Your task to perform on an android device: turn on sleep mode Image 0: 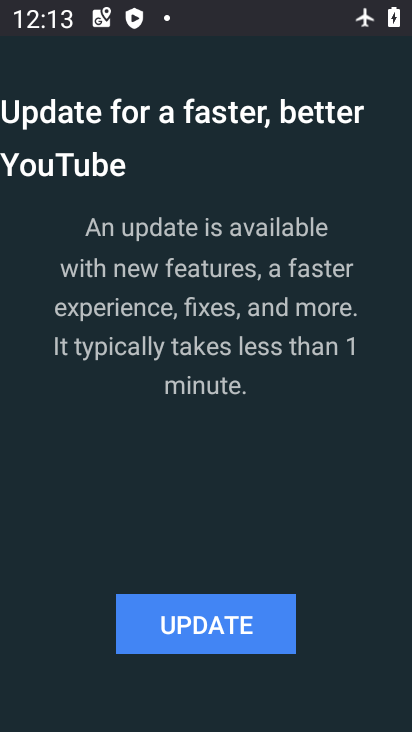
Step 0: press back button
Your task to perform on an android device: turn on sleep mode Image 1: 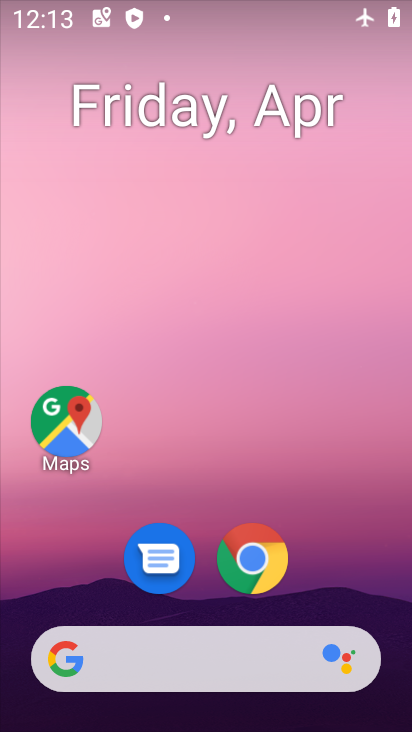
Step 1: drag from (392, 606) to (205, 62)
Your task to perform on an android device: turn on sleep mode Image 2: 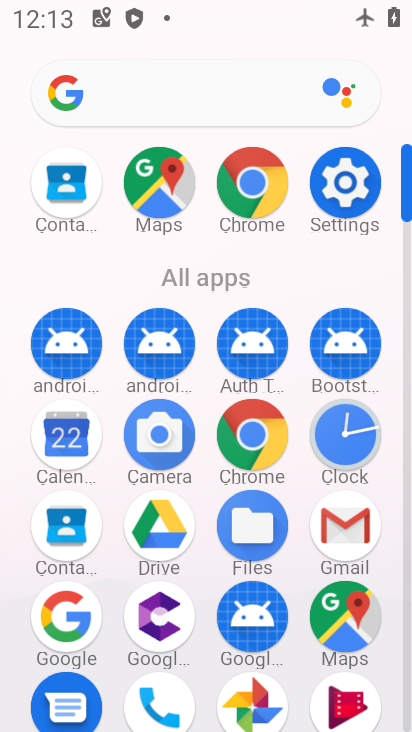
Step 2: click (356, 201)
Your task to perform on an android device: turn on sleep mode Image 3: 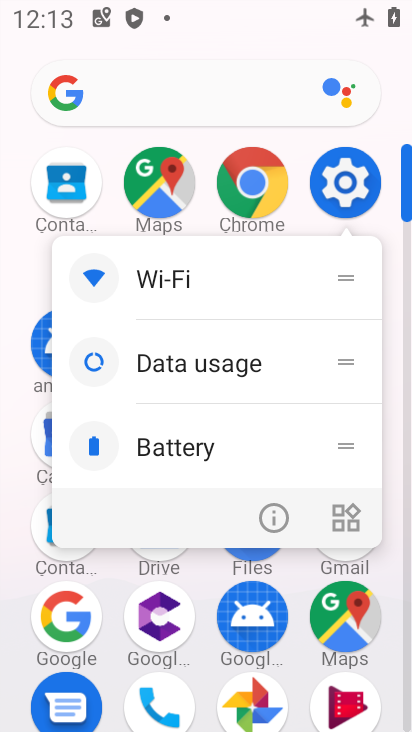
Step 3: click (338, 189)
Your task to perform on an android device: turn on sleep mode Image 4: 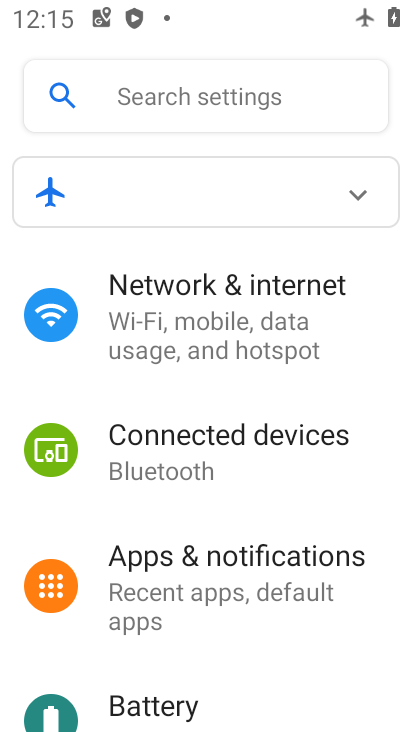
Step 4: task complete